Your task to perform on an android device: What's the weather today? Image 0: 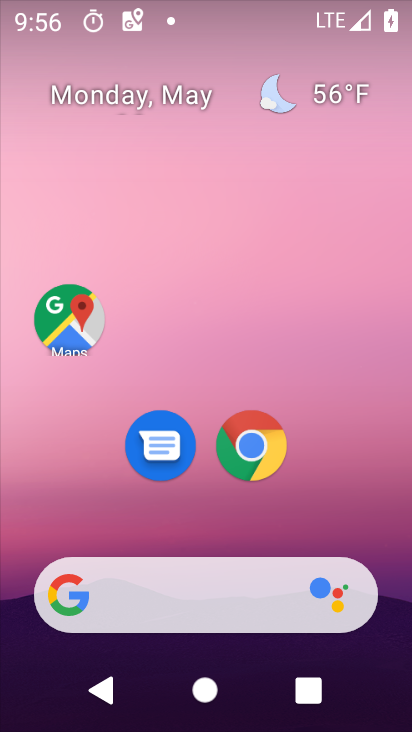
Step 0: click (309, 110)
Your task to perform on an android device: What's the weather today? Image 1: 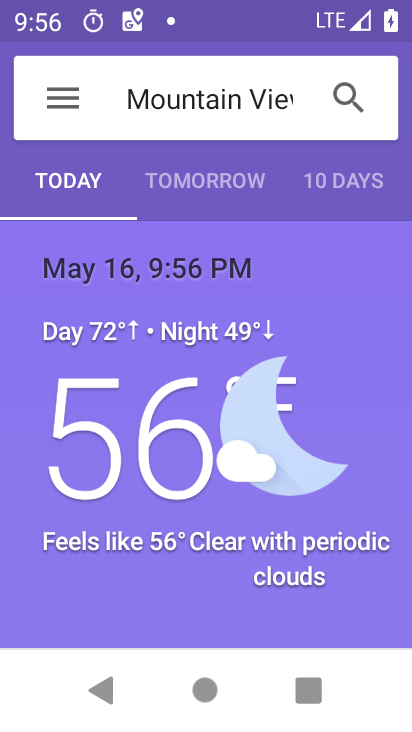
Step 1: task complete